Your task to perform on an android device: check android version Image 0: 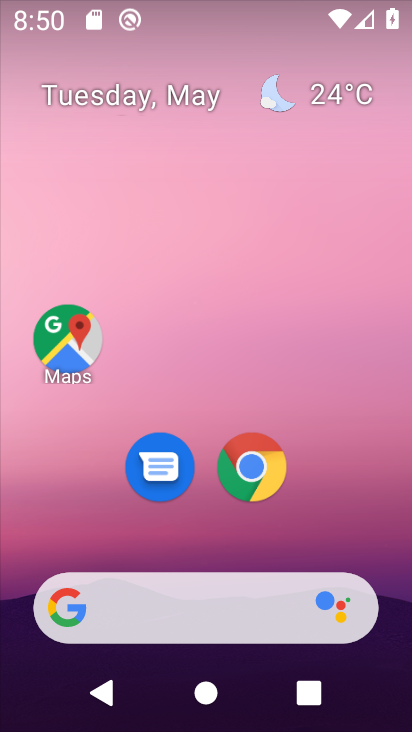
Step 0: drag from (386, 577) to (330, 221)
Your task to perform on an android device: check android version Image 1: 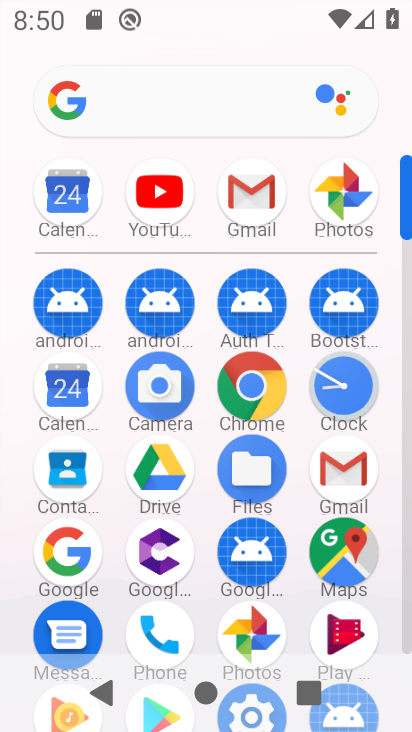
Step 1: drag from (203, 608) to (198, 317)
Your task to perform on an android device: check android version Image 2: 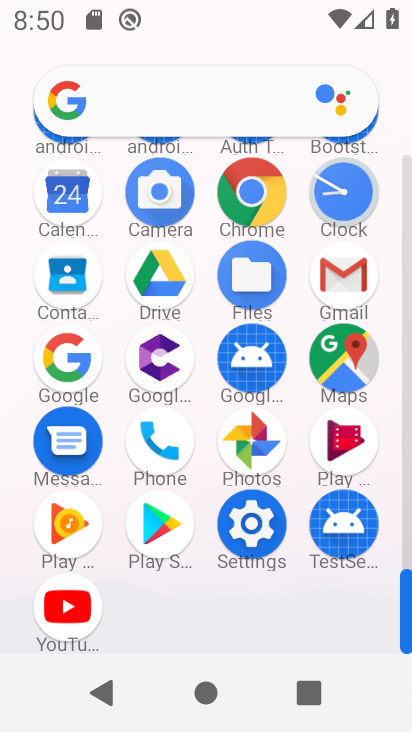
Step 2: click (259, 508)
Your task to perform on an android device: check android version Image 3: 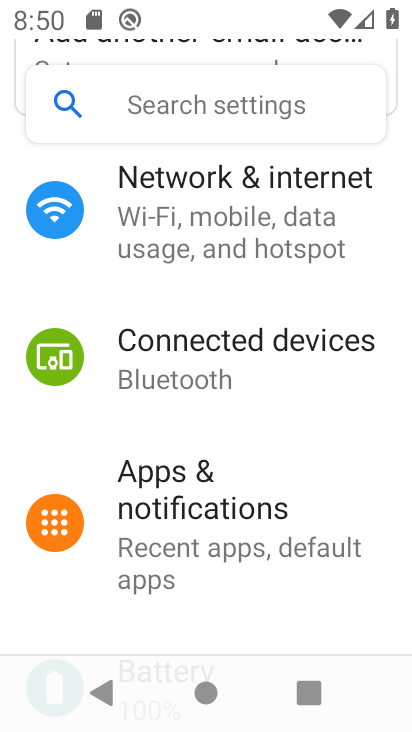
Step 3: drag from (350, 618) to (332, 132)
Your task to perform on an android device: check android version Image 4: 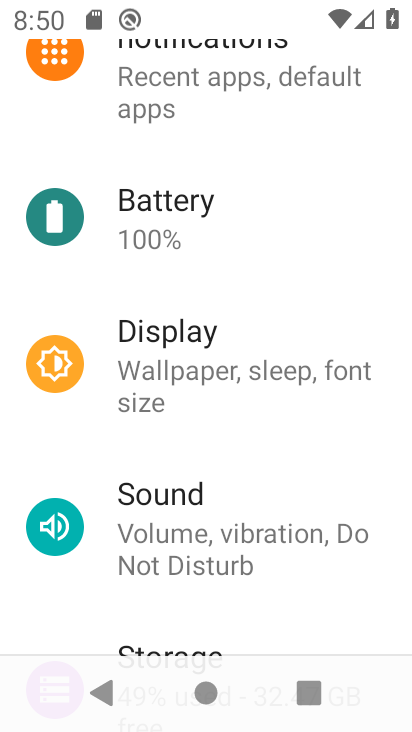
Step 4: drag from (330, 619) to (323, 202)
Your task to perform on an android device: check android version Image 5: 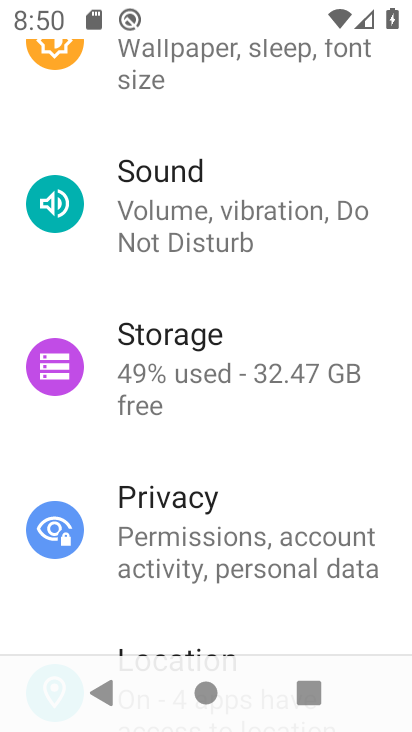
Step 5: drag from (294, 622) to (241, 206)
Your task to perform on an android device: check android version Image 6: 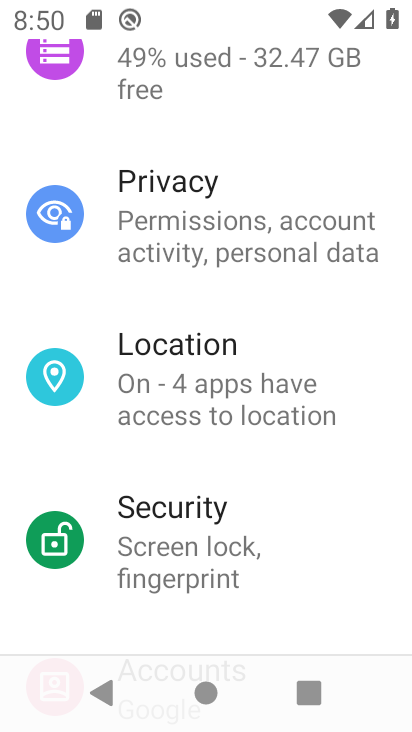
Step 6: drag from (310, 595) to (298, 126)
Your task to perform on an android device: check android version Image 7: 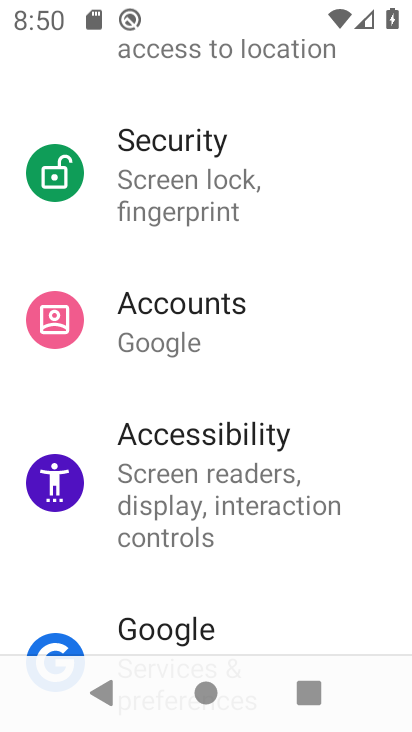
Step 7: drag from (286, 622) to (269, 261)
Your task to perform on an android device: check android version Image 8: 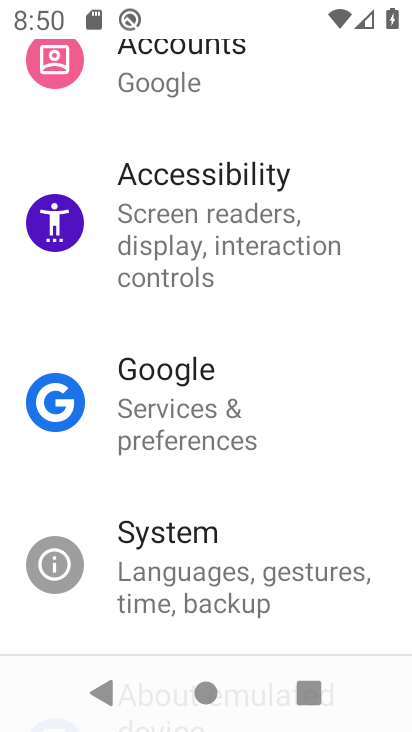
Step 8: drag from (289, 612) to (274, 316)
Your task to perform on an android device: check android version Image 9: 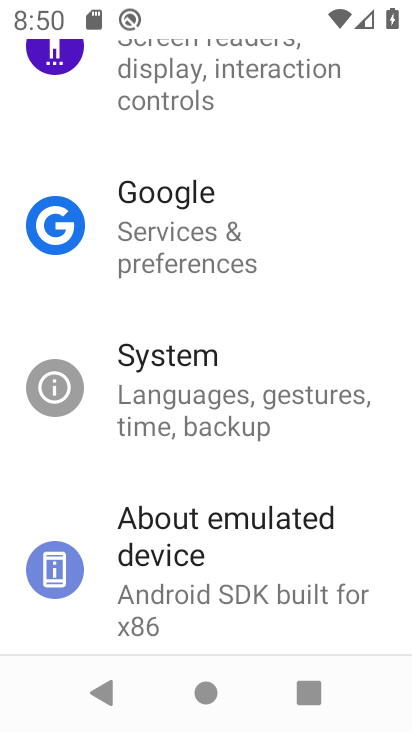
Step 9: drag from (279, 619) to (296, 322)
Your task to perform on an android device: check android version Image 10: 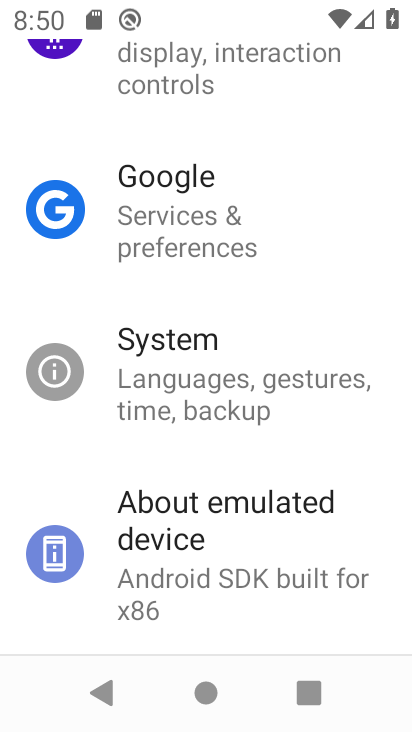
Step 10: click (212, 520)
Your task to perform on an android device: check android version Image 11: 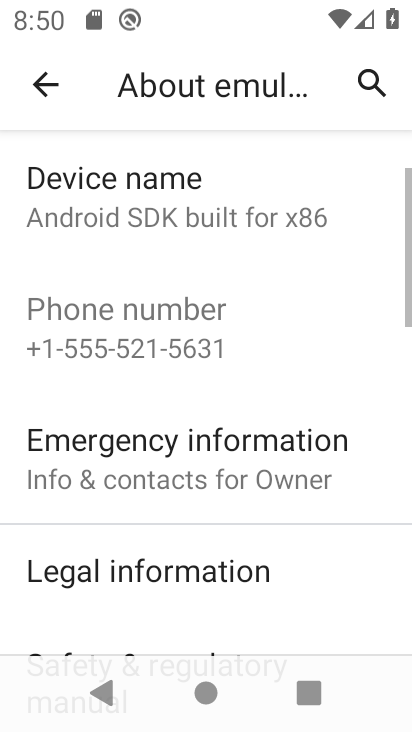
Step 11: drag from (298, 619) to (254, 215)
Your task to perform on an android device: check android version Image 12: 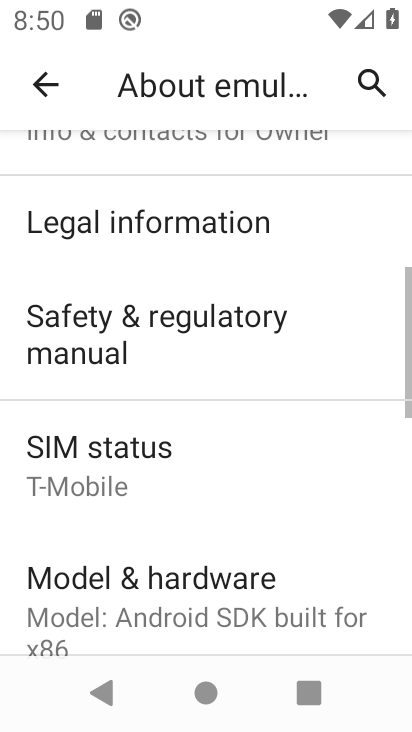
Step 12: drag from (318, 584) to (293, 234)
Your task to perform on an android device: check android version Image 13: 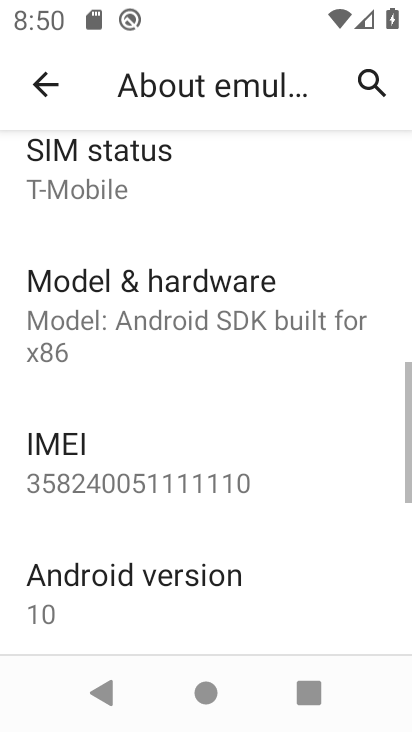
Step 13: click (172, 570)
Your task to perform on an android device: check android version Image 14: 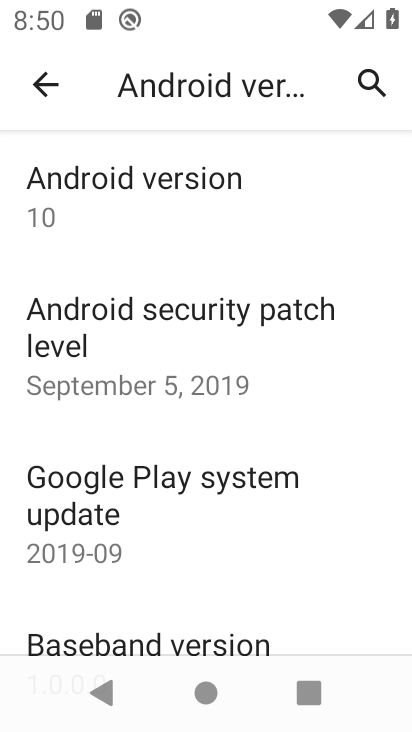
Step 14: task complete